Your task to perform on an android device: turn on location history Image 0: 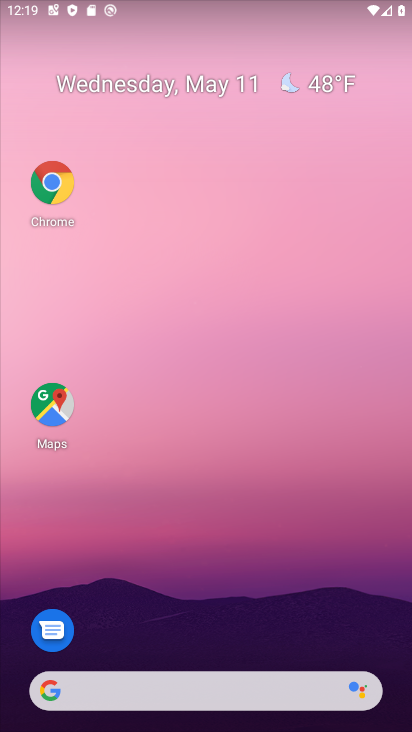
Step 0: drag from (230, 667) to (176, 3)
Your task to perform on an android device: turn on location history Image 1: 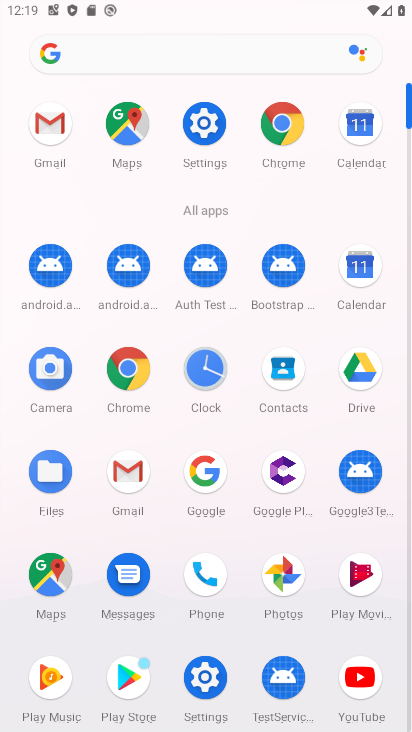
Step 1: click (203, 117)
Your task to perform on an android device: turn on location history Image 2: 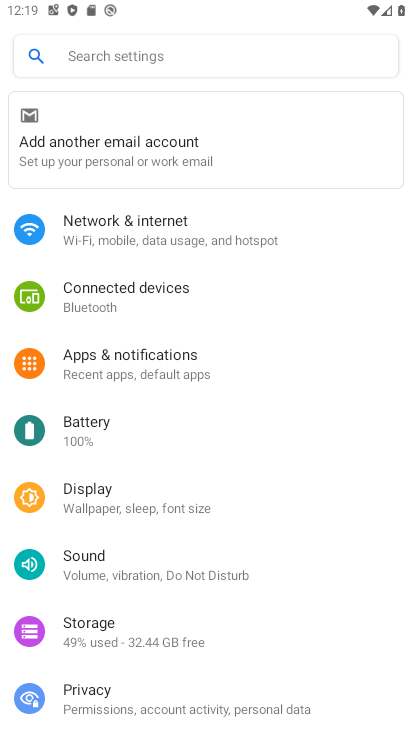
Step 2: drag from (184, 603) to (185, 197)
Your task to perform on an android device: turn on location history Image 3: 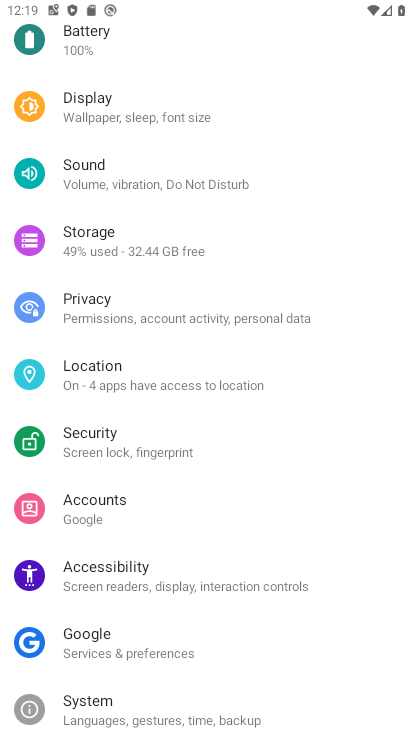
Step 3: click (152, 382)
Your task to perform on an android device: turn on location history Image 4: 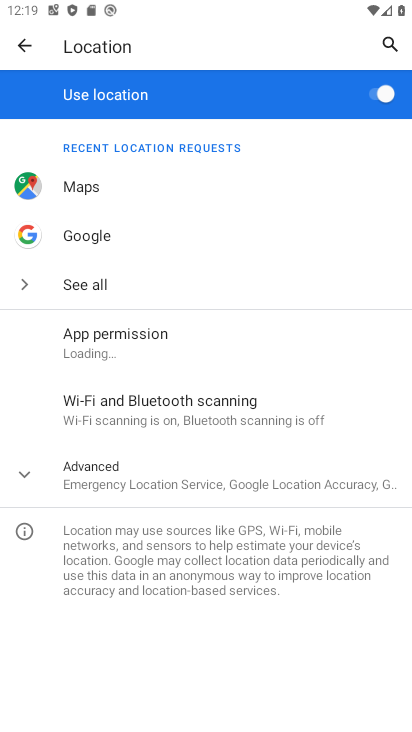
Step 4: click (164, 472)
Your task to perform on an android device: turn on location history Image 5: 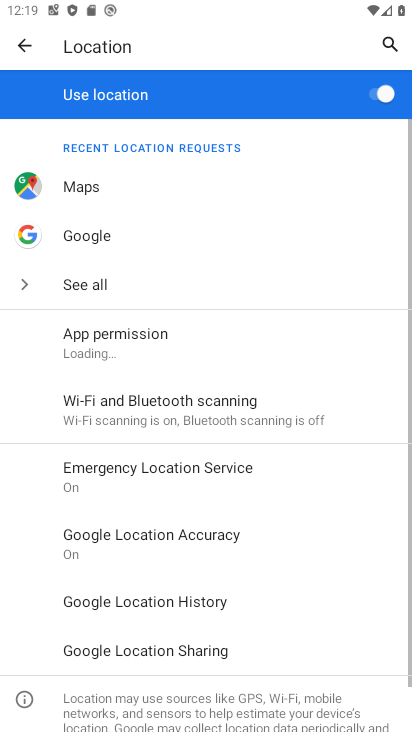
Step 5: click (198, 599)
Your task to perform on an android device: turn on location history Image 6: 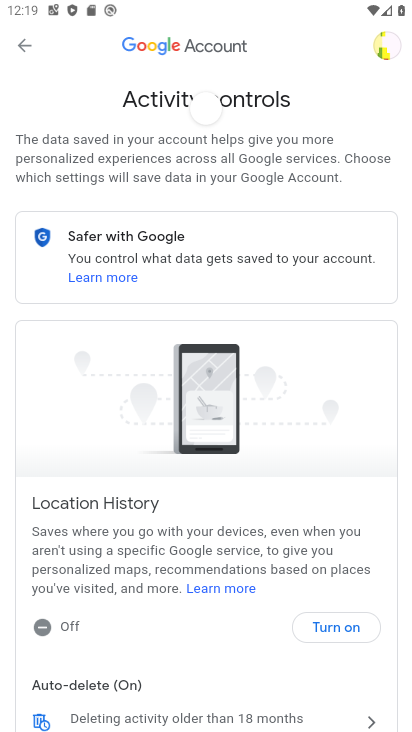
Step 6: click (319, 631)
Your task to perform on an android device: turn on location history Image 7: 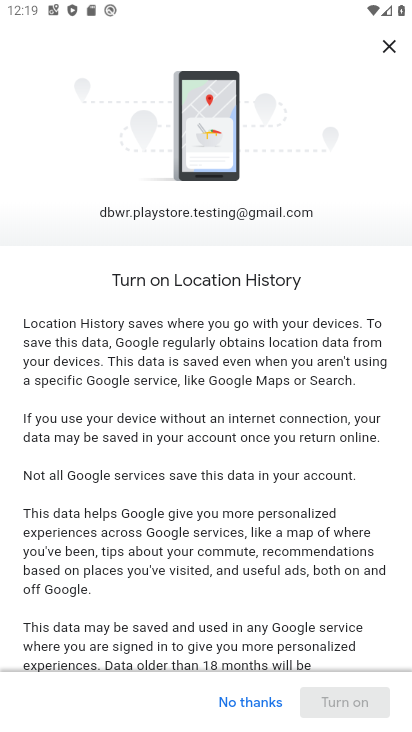
Step 7: drag from (317, 655) to (303, 53)
Your task to perform on an android device: turn on location history Image 8: 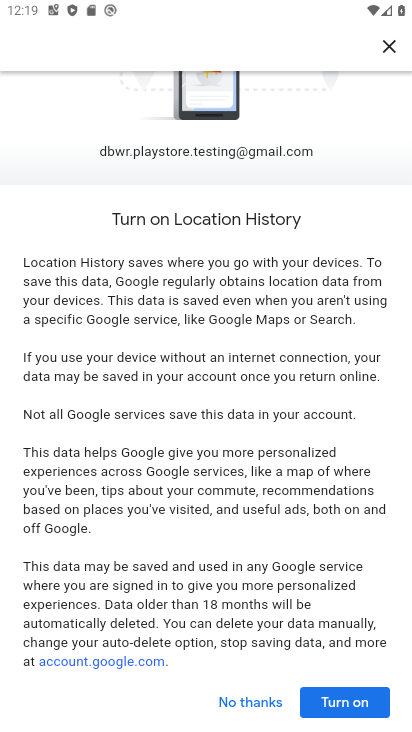
Step 8: click (373, 705)
Your task to perform on an android device: turn on location history Image 9: 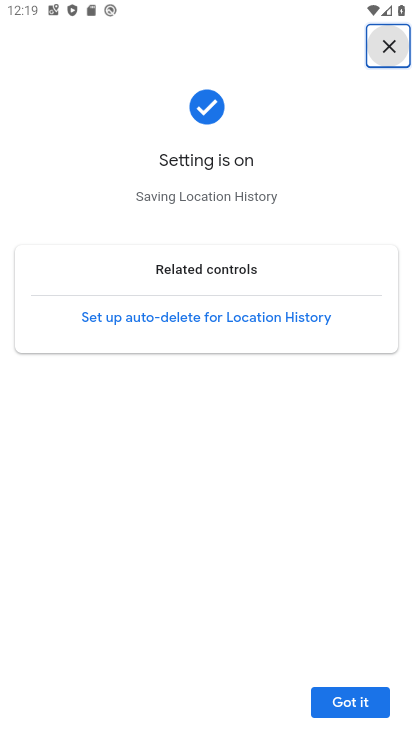
Step 9: click (346, 698)
Your task to perform on an android device: turn on location history Image 10: 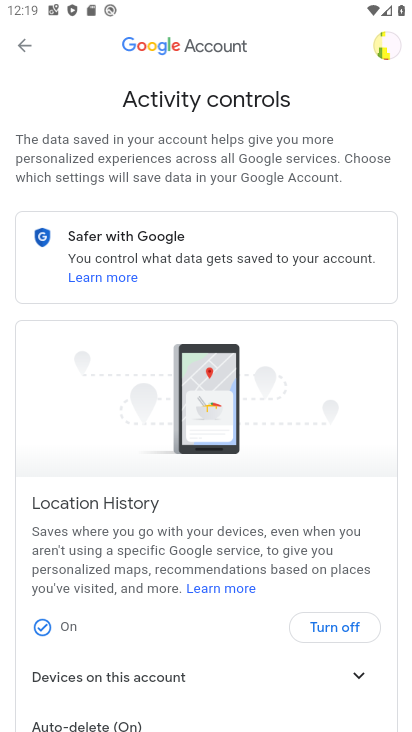
Step 10: task complete